Your task to perform on an android device: toggle location history Image 0: 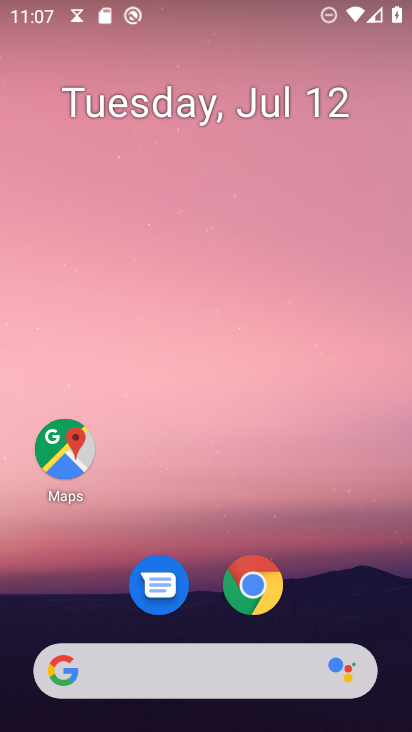
Step 0: click (59, 448)
Your task to perform on an android device: toggle location history Image 1: 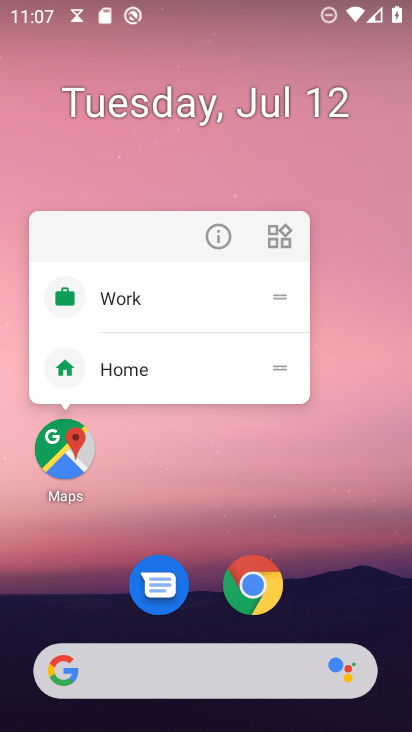
Step 1: click (74, 458)
Your task to perform on an android device: toggle location history Image 2: 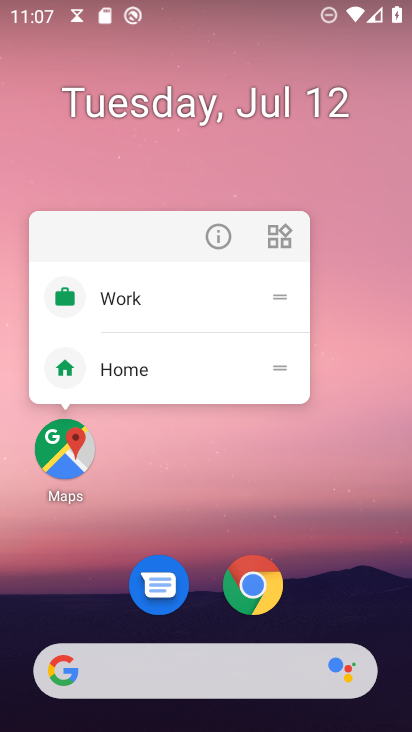
Step 2: click (66, 462)
Your task to perform on an android device: toggle location history Image 3: 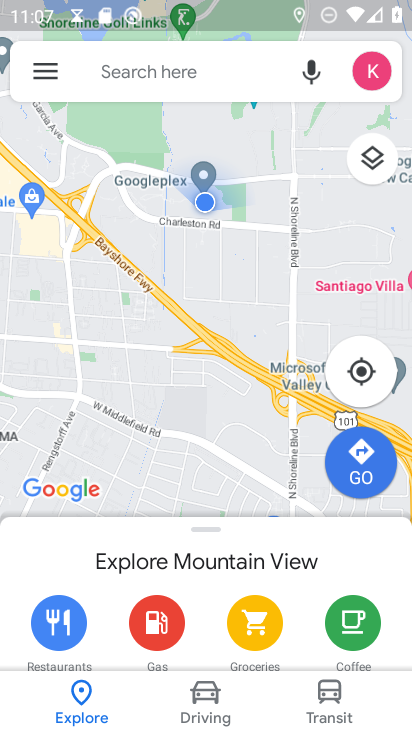
Step 3: click (44, 74)
Your task to perform on an android device: toggle location history Image 4: 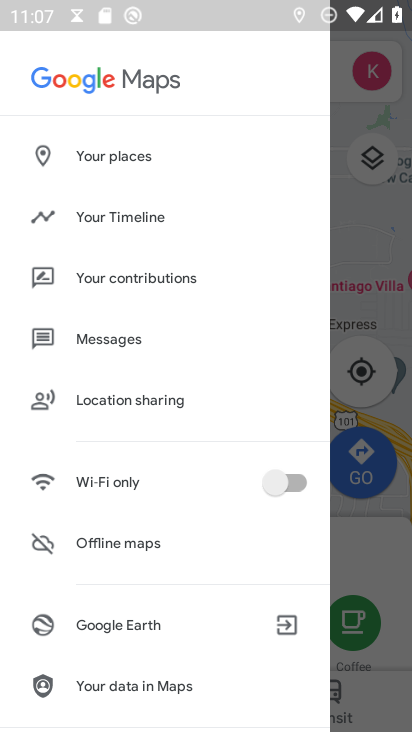
Step 4: click (144, 211)
Your task to perform on an android device: toggle location history Image 5: 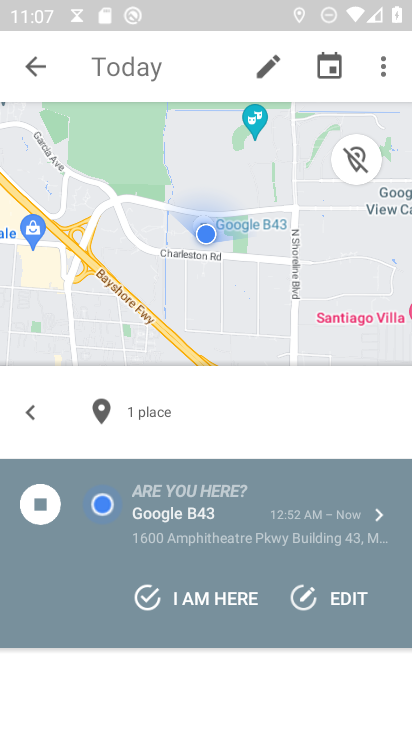
Step 5: click (383, 74)
Your task to perform on an android device: toggle location history Image 6: 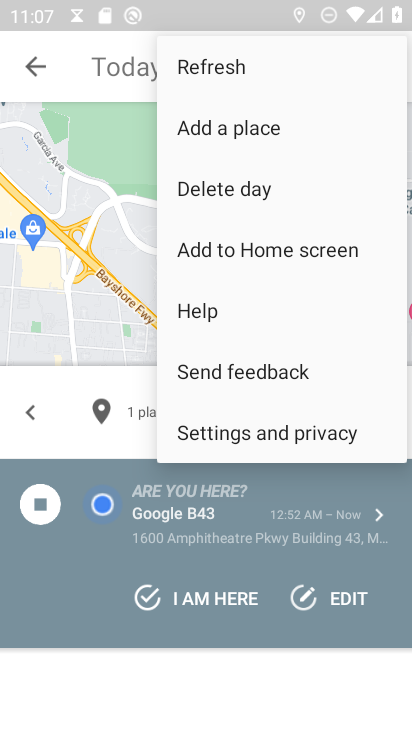
Step 6: click (245, 433)
Your task to perform on an android device: toggle location history Image 7: 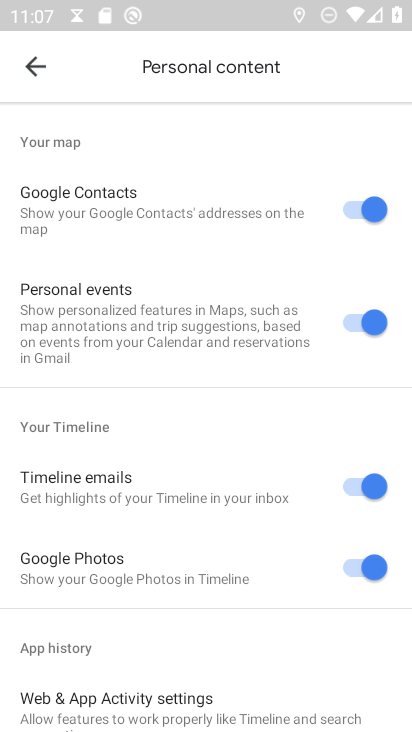
Step 7: drag from (238, 614) to (373, 94)
Your task to perform on an android device: toggle location history Image 8: 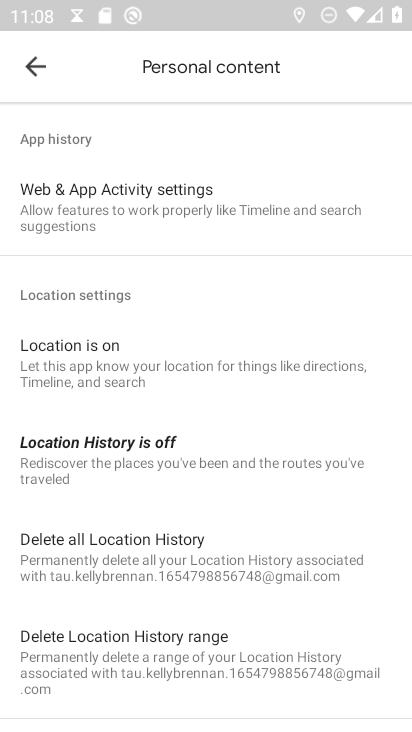
Step 8: click (207, 456)
Your task to perform on an android device: toggle location history Image 9: 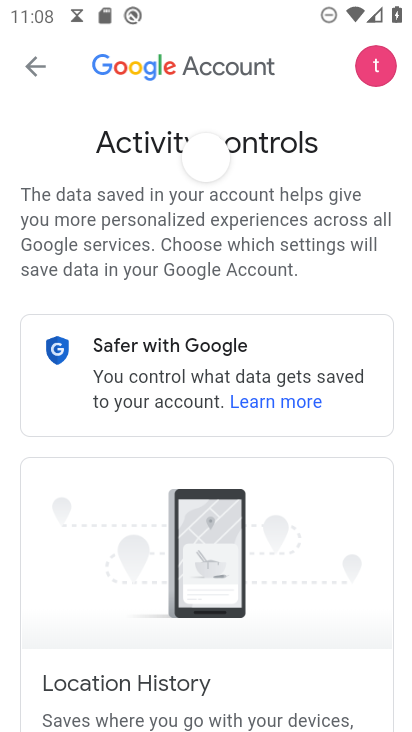
Step 9: drag from (282, 654) to (398, 76)
Your task to perform on an android device: toggle location history Image 10: 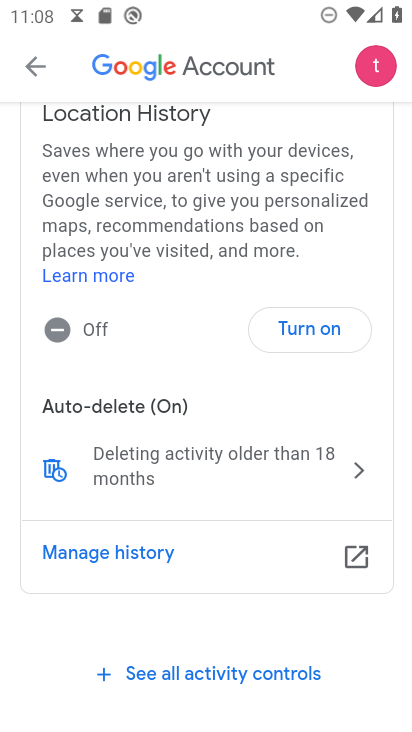
Step 10: click (331, 321)
Your task to perform on an android device: toggle location history Image 11: 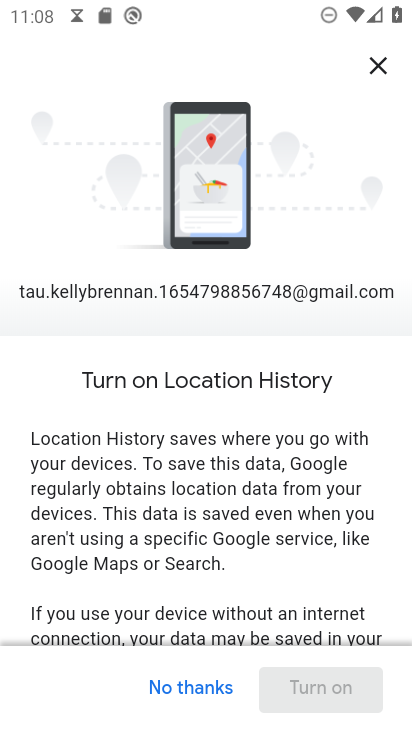
Step 11: drag from (288, 603) to (411, 70)
Your task to perform on an android device: toggle location history Image 12: 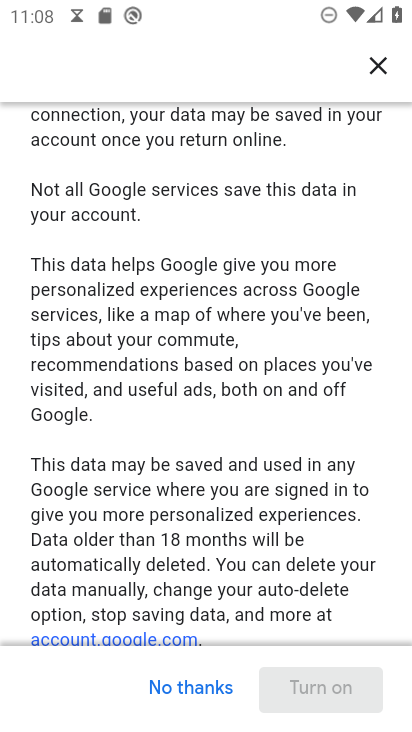
Step 12: drag from (261, 582) to (407, 81)
Your task to perform on an android device: toggle location history Image 13: 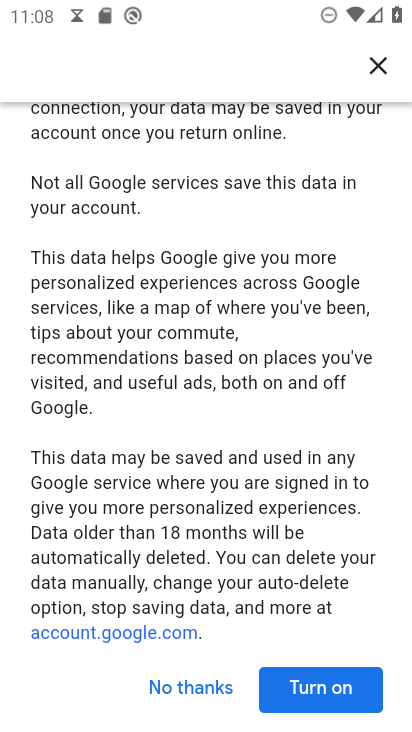
Step 13: click (312, 688)
Your task to perform on an android device: toggle location history Image 14: 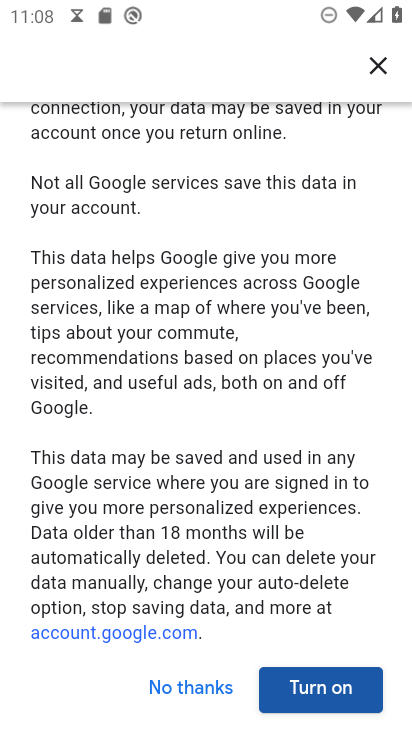
Step 14: click (327, 692)
Your task to perform on an android device: toggle location history Image 15: 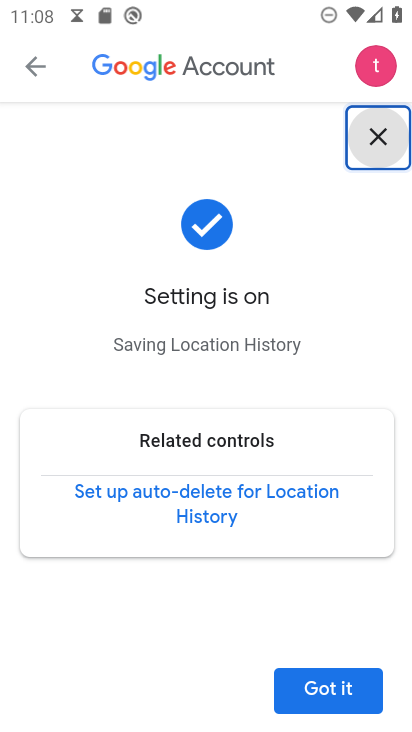
Step 15: click (317, 685)
Your task to perform on an android device: toggle location history Image 16: 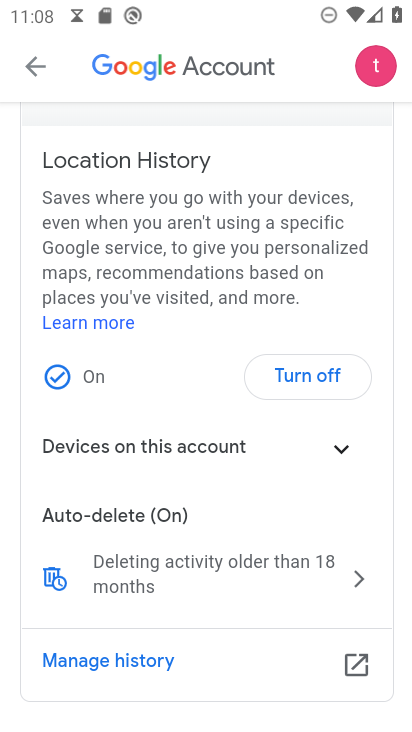
Step 16: task complete